Your task to perform on an android device: toggle wifi Image 0: 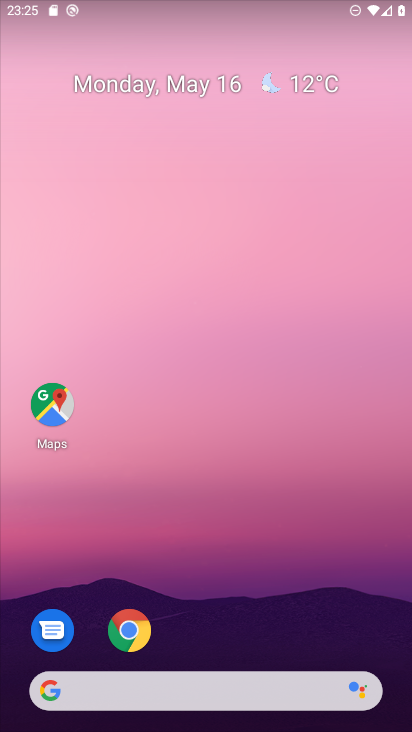
Step 0: drag from (216, 550) to (158, 40)
Your task to perform on an android device: toggle wifi Image 1: 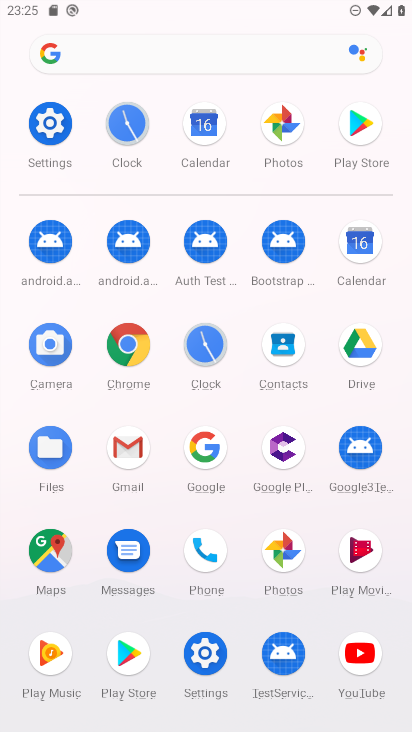
Step 1: click (60, 109)
Your task to perform on an android device: toggle wifi Image 2: 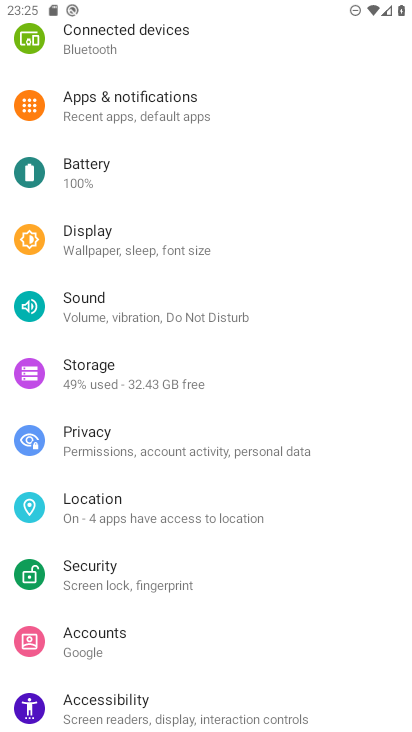
Step 2: drag from (229, 164) to (254, 460)
Your task to perform on an android device: toggle wifi Image 3: 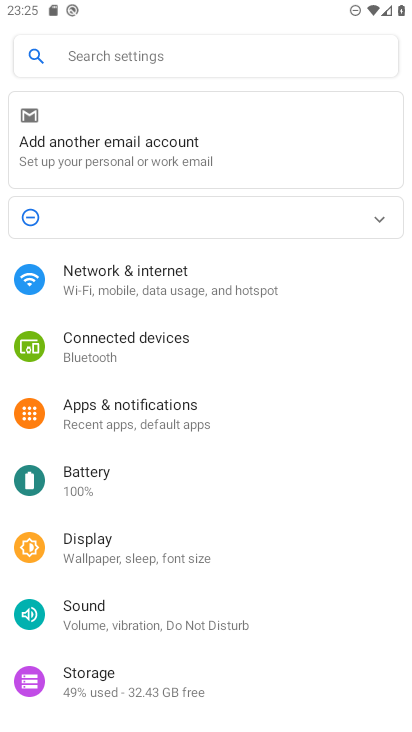
Step 3: click (224, 271)
Your task to perform on an android device: toggle wifi Image 4: 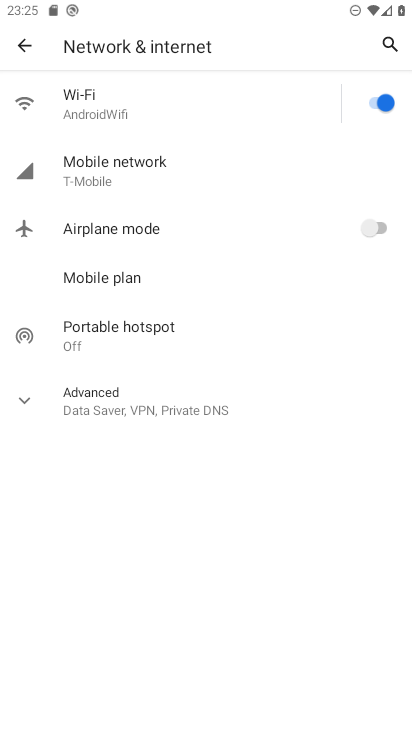
Step 4: click (373, 95)
Your task to perform on an android device: toggle wifi Image 5: 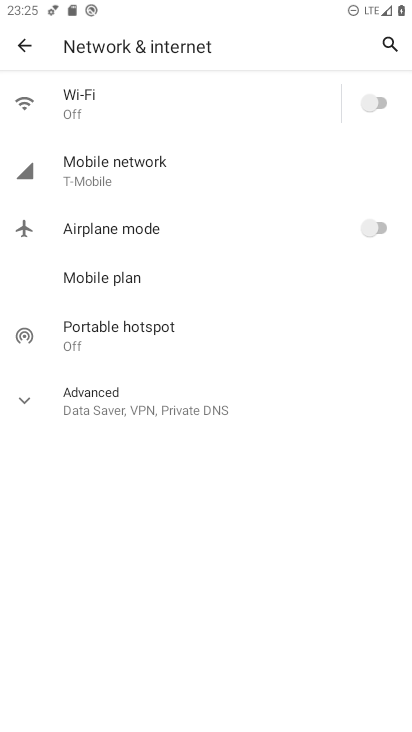
Step 5: task complete